Your task to perform on an android device: add a contact in the contacts app Image 0: 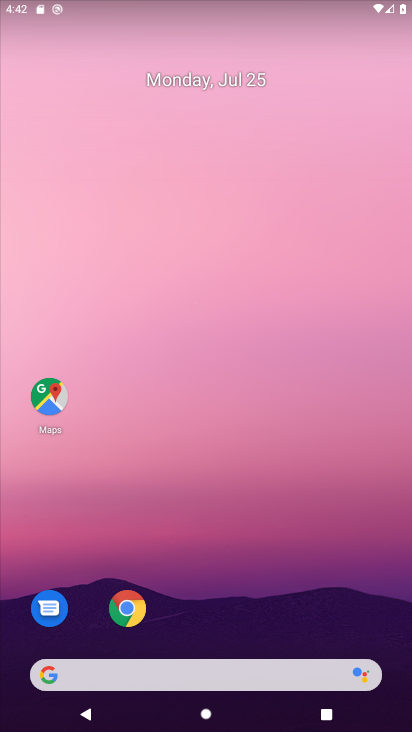
Step 0: drag from (203, 529) to (171, 40)
Your task to perform on an android device: add a contact in the contacts app Image 1: 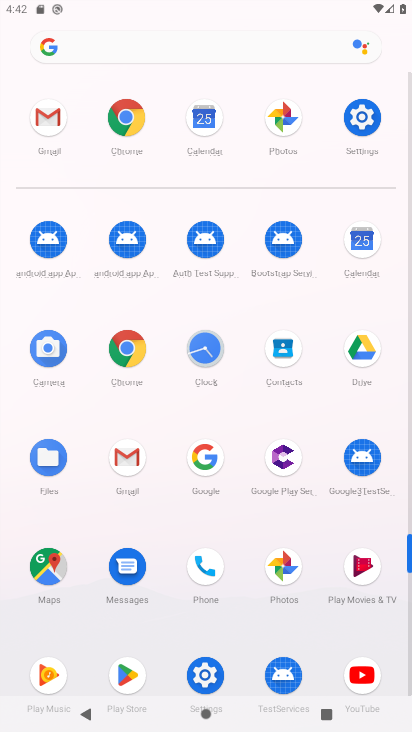
Step 1: click (279, 361)
Your task to perform on an android device: add a contact in the contacts app Image 2: 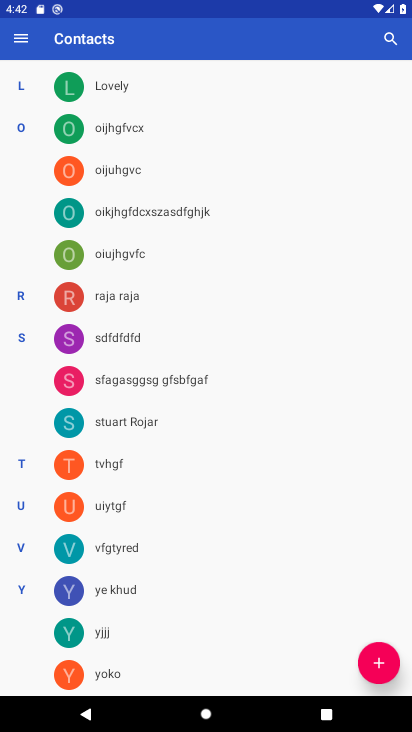
Step 2: click (375, 656)
Your task to perform on an android device: add a contact in the contacts app Image 3: 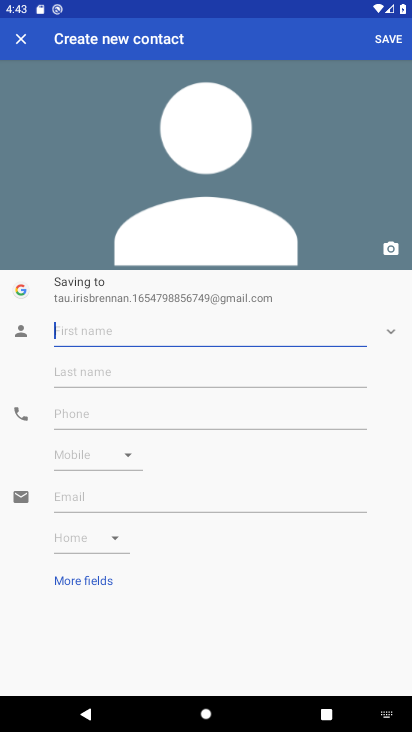
Step 3: type "flakes"
Your task to perform on an android device: add a contact in the contacts app Image 4: 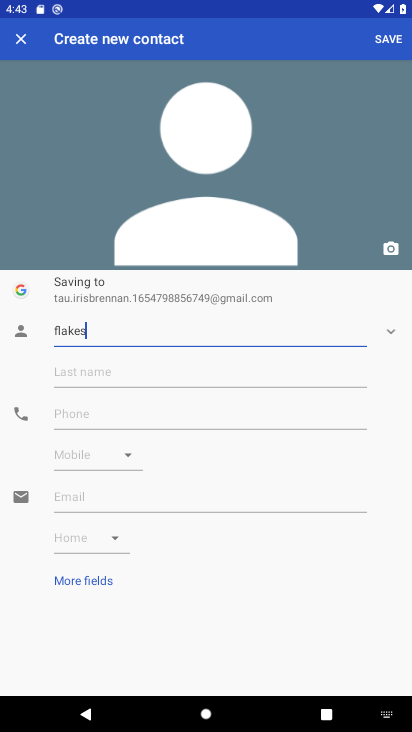
Step 4: click (386, 39)
Your task to perform on an android device: add a contact in the contacts app Image 5: 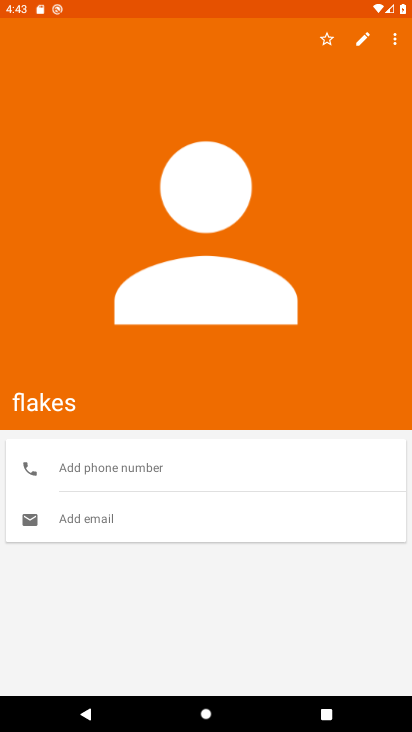
Step 5: task complete